Your task to perform on an android device: stop showing notifications on the lock screen Image 0: 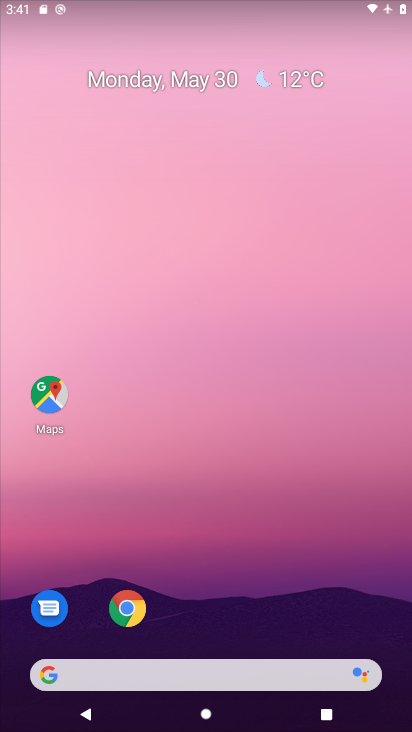
Step 0: drag from (245, 275) to (169, 3)
Your task to perform on an android device: stop showing notifications on the lock screen Image 1: 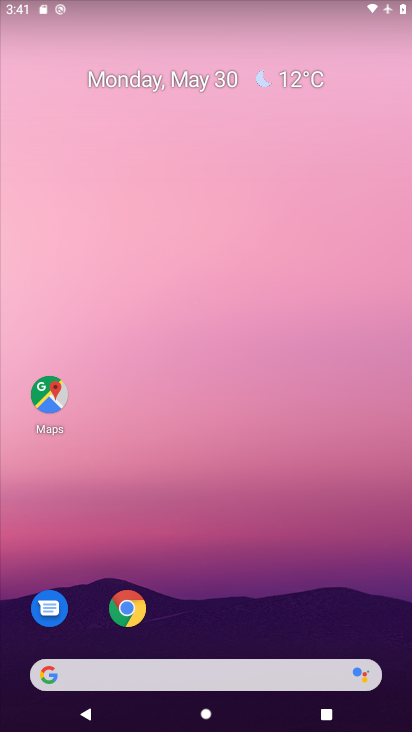
Step 1: drag from (294, 501) to (224, 31)
Your task to perform on an android device: stop showing notifications on the lock screen Image 2: 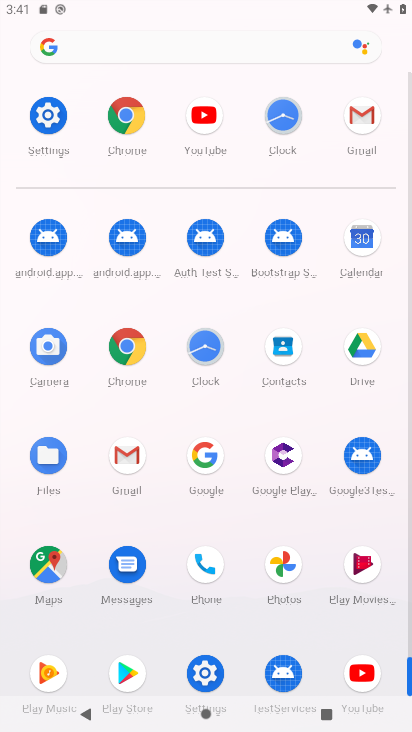
Step 2: click (39, 123)
Your task to perform on an android device: stop showing notifications on the lock screen Image 3: 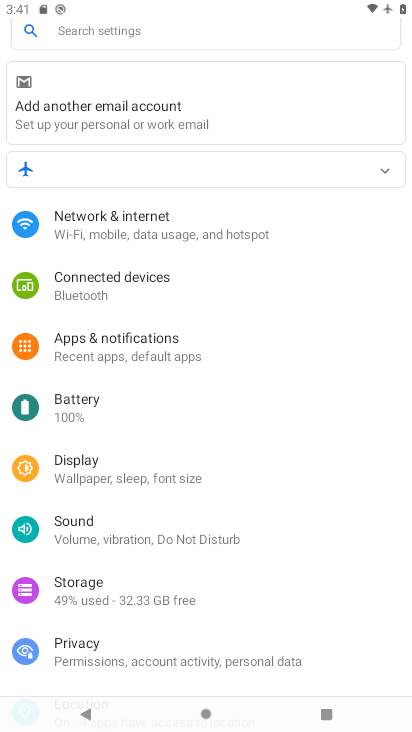
Step 3: click (187, 339)
Your task to perform on an android device: stop showing notifications on the lock screen Image 4: 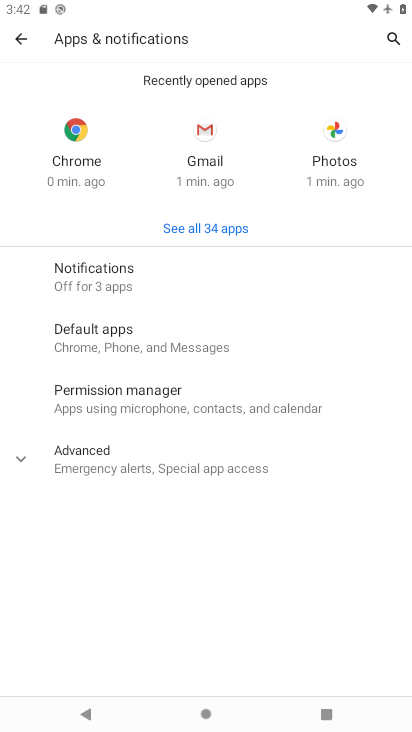
Step 4: click (196, 258)
Your task to perform on an android device: stop showing notifications on the lock screen Image 5: 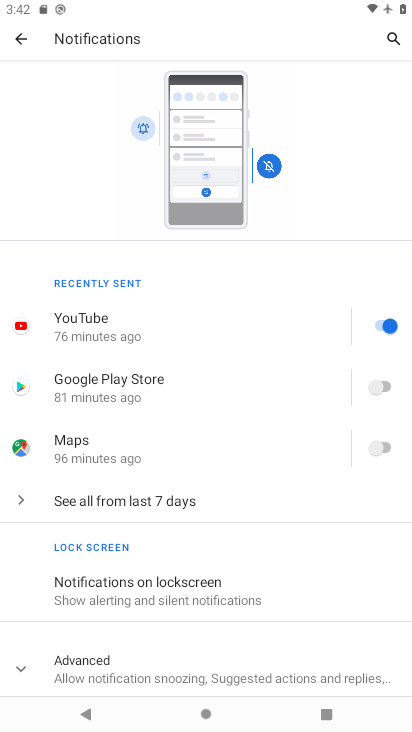
Step 5: click (223, 591)
Your task to perform on an android device: stop showing notifications on the lock screen Image 6: 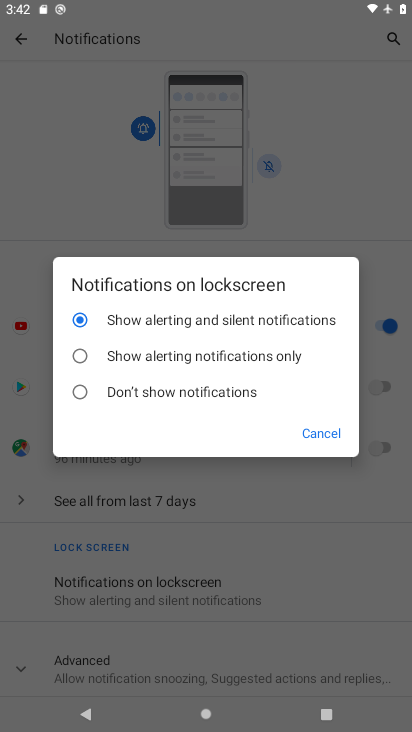
Step 6: click (152, 390)
Your task to perform on an android device: stop showing notifications on the lock screen Image 7: 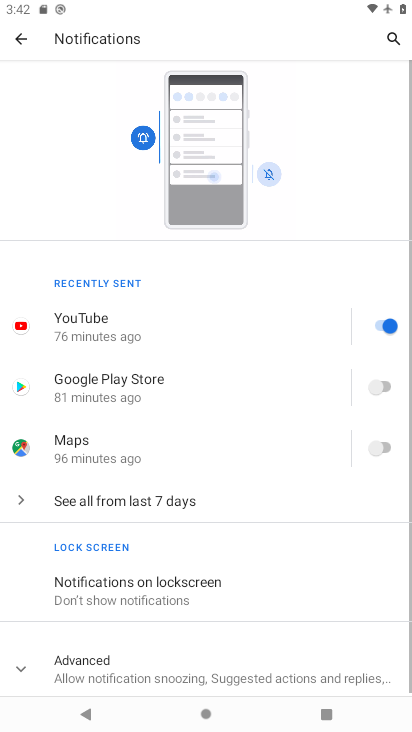
Step 7: task complete